Your task to perform on an android device: What is the capital of Italy? Image 0: 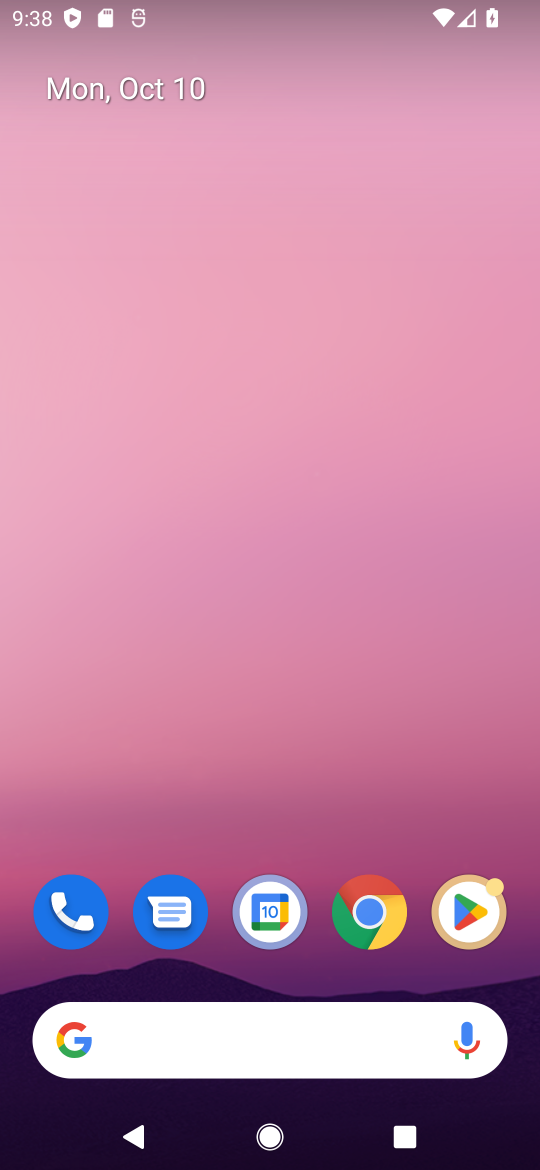
Step 0: click (75, 1039)
Your task to perform on an android device: What is the capital of Italy? Image 1: 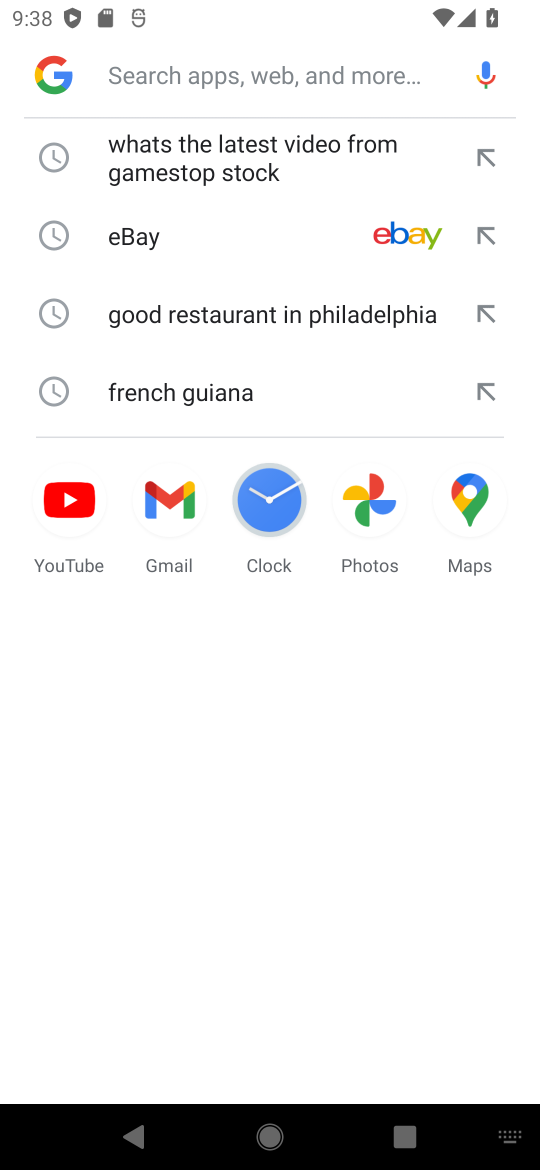
Step 1: type "what is the capital of iktaly ?"
Your task to perform on an android device: What is the capital of Italy? Image 2: 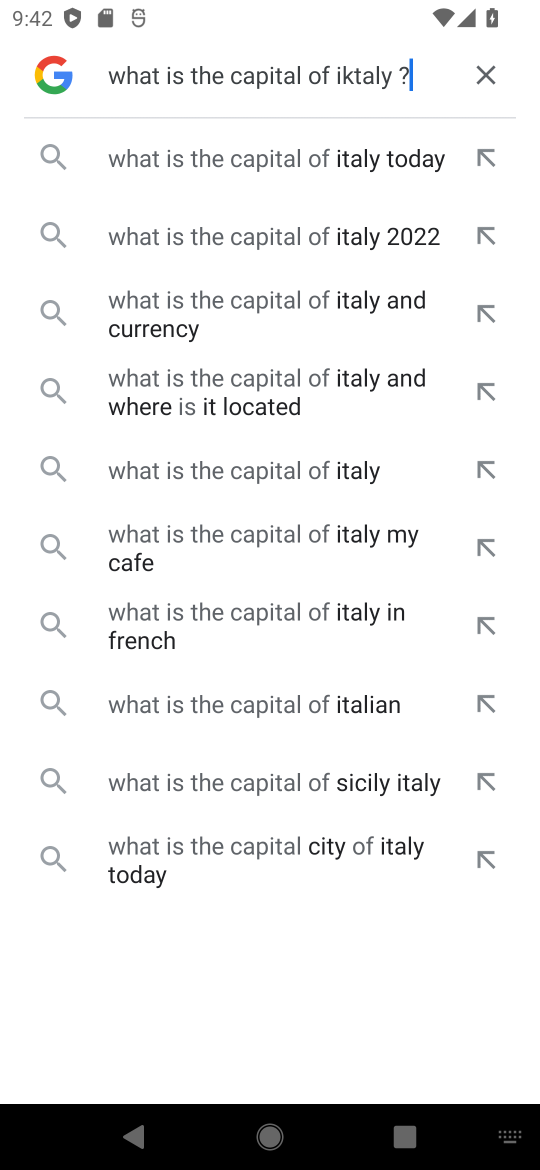
Step 2: click (279, 236)
Your task to perform on an android device: What is the capital of Italy? Image 3: 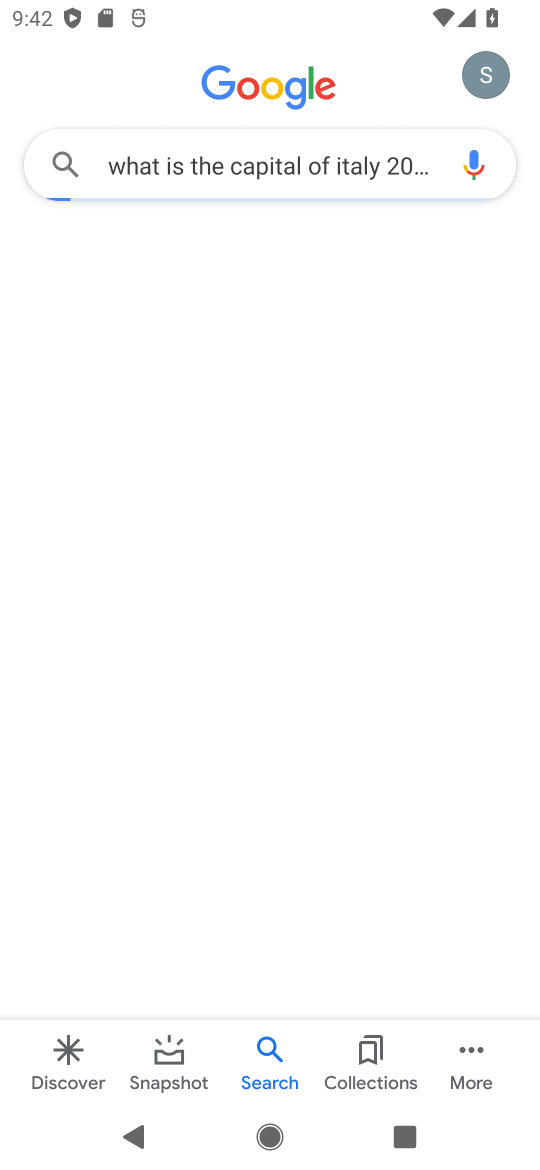
Step 3: task complete